Your task to perform on an android device: Open display settings Image 0: 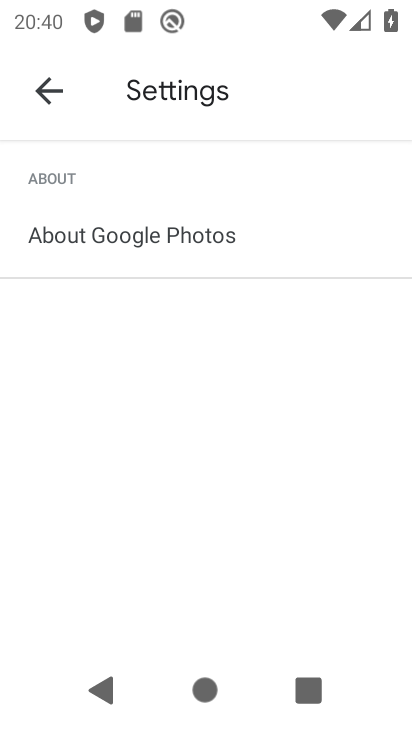
Step 0: press home button
Your task to perform on an android device: Open display settings Image 1: 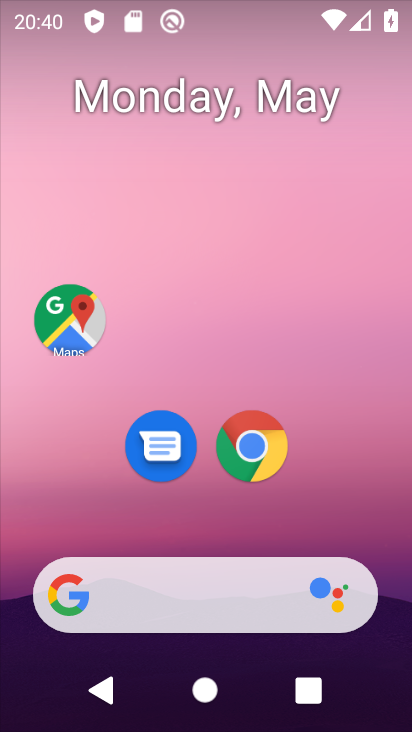
Step 1: drag from (359, 482) to (198, 69)
Your task to perform on an android device: Open display settings Image 2: 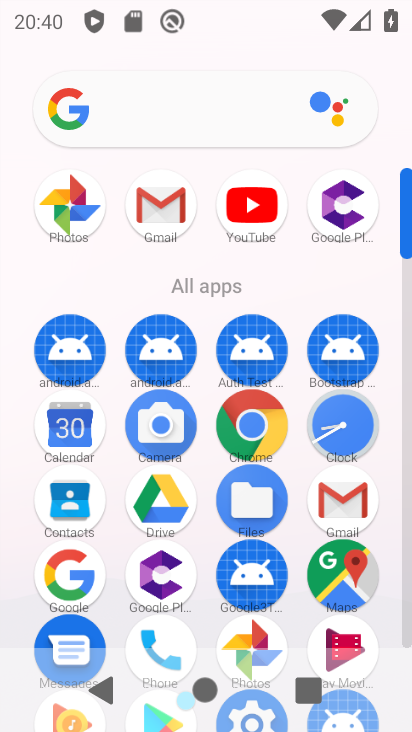
Step 2: drag from (304, 544) to (353, 129)
Your task to perform on an android device: Open display settings Image 3: 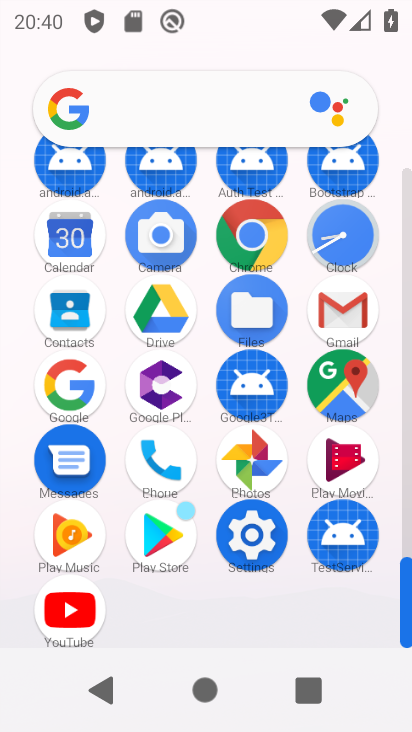
Step 3: click (258, 551)
Your task to perform on an android device: Open display settings Image 4: 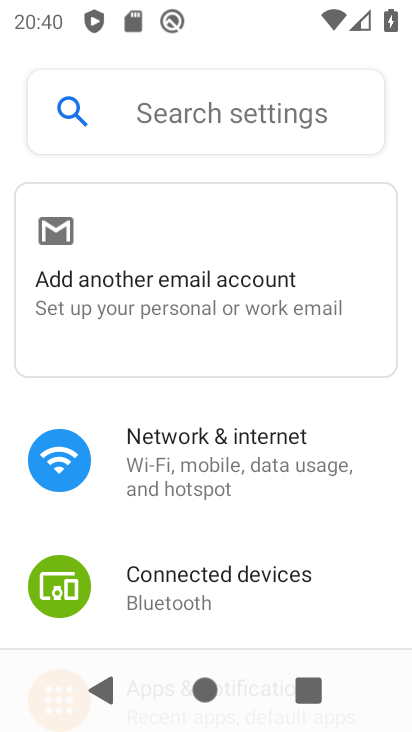
Step 4: drag from (231, 595) to (251, 126)
Your task to perform on an android device: Open display settings Image 5: 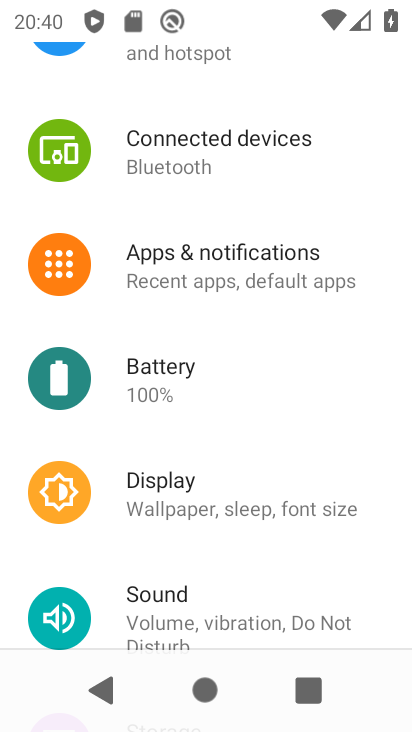
Step 5: click (173, 485)
Your task to perform on an android device: Open display settings Image 6: 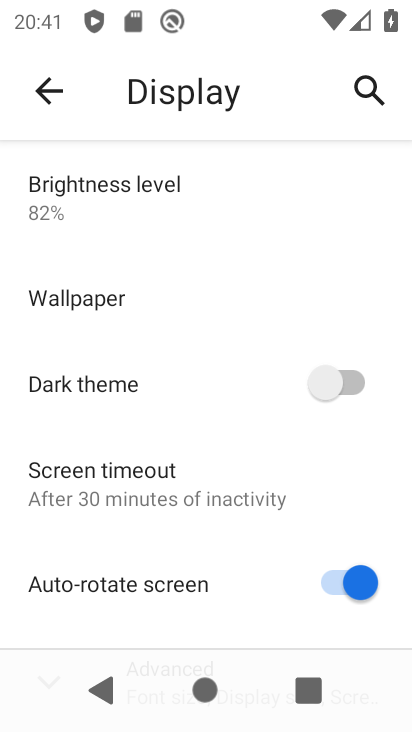
Step 6: task complete